Your task to perform on an android device: turn vacation reply on in the gmail app Image 0: 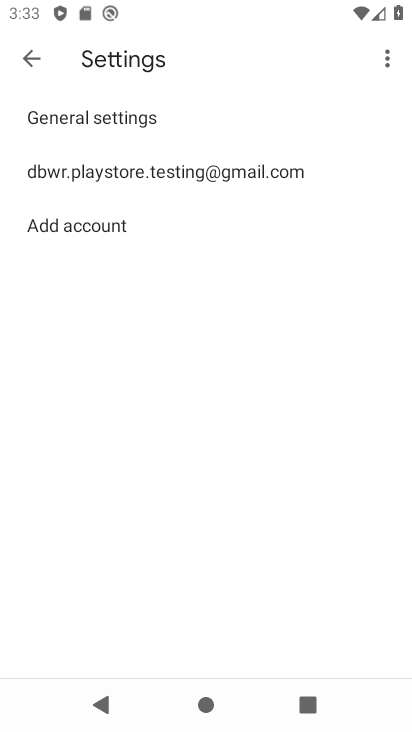
Step 0: press back button
Your task to perform on an android device: turn vacation reply on in the gmail app Image 1: 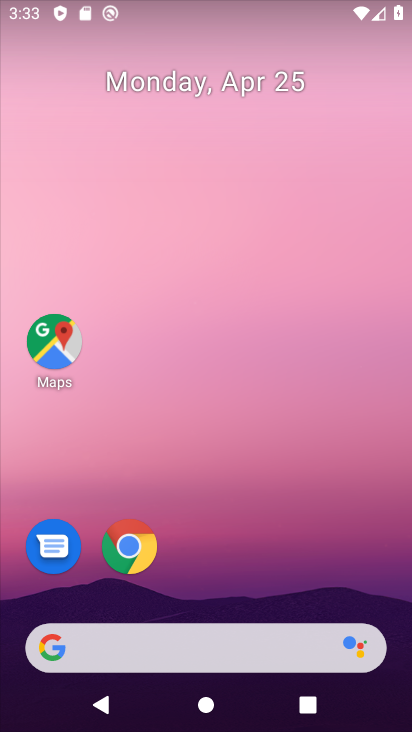
Step 1: drag from (206, 575) to (298, 68)
Your task to perform on an android device: turn vacation reply on in the gmail app Image 2: 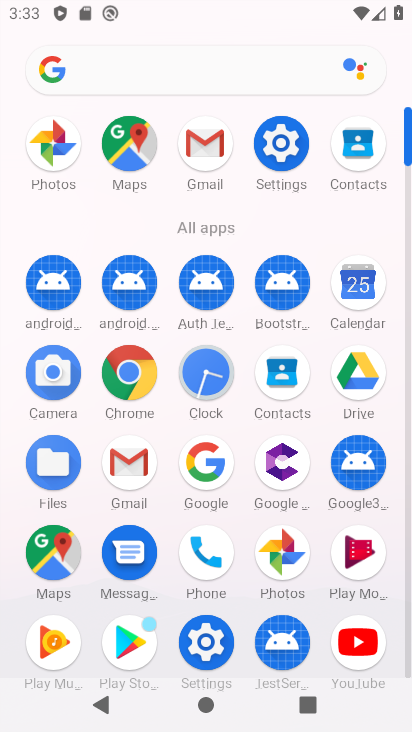
Step 2: click (122, 461)
Your task to perform on an android device: turn vacation reply on in the gmail app Image 3: 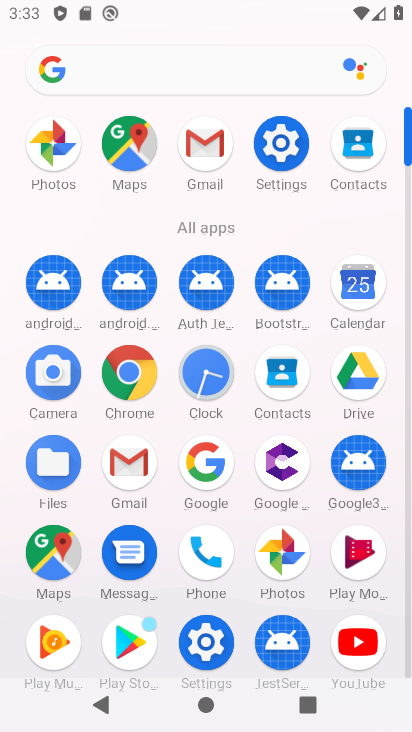
Step 3: click (132, 470)
Your task to perform on an android device: turn vacation reply on in the gmail app Image 4: 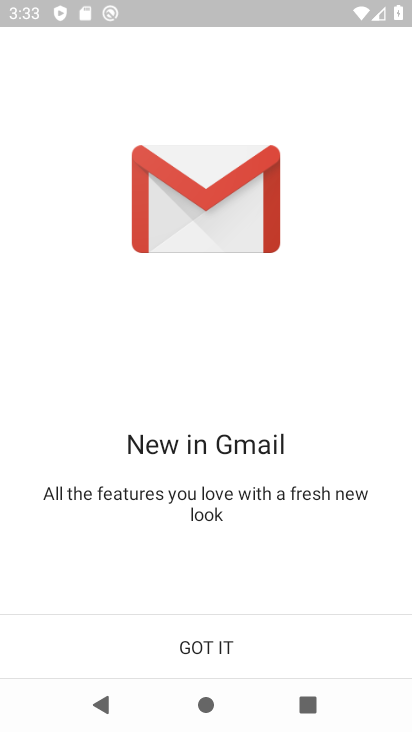
Step 4: click (244, 658)
Your task to perform on an android device: turn vacation reply on in the gmail app Image 5: 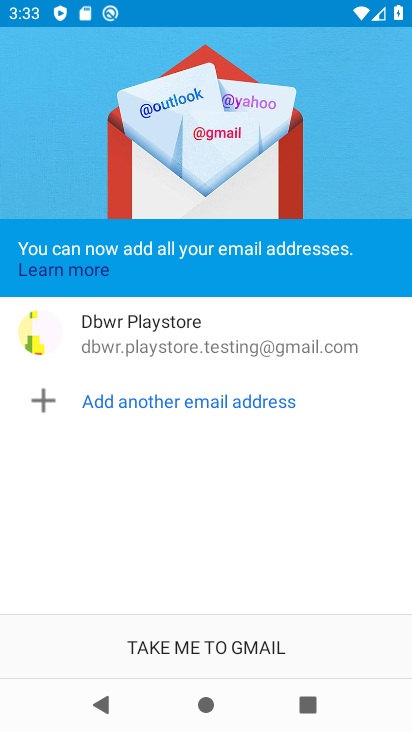
Step 5: click (251, 648)
Your task to perform on an android device: turn vacation reply on in the gmail app Image 6: 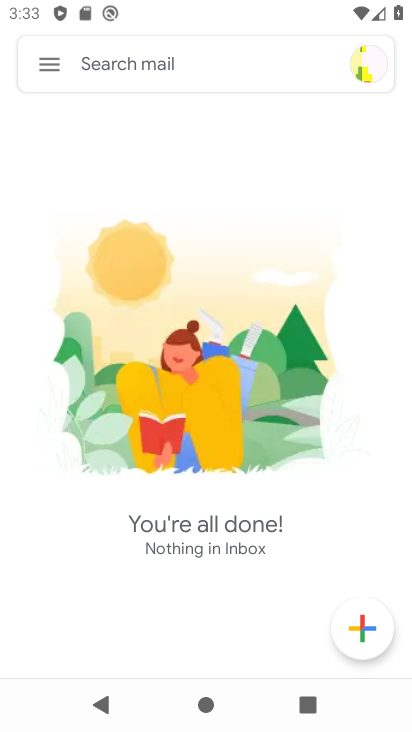
Step 6: click (57, 75)
Your task to perform on an android device: turn vacation reply on in the gmail app Image 7: 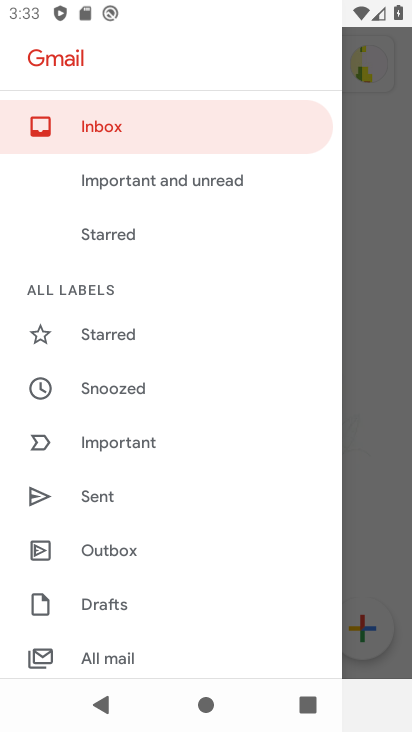
Step 7: drag from (166, 598) to (245, 204)
Your task to perform on an android device: turn vacation reply on in the gmail app Image 8: 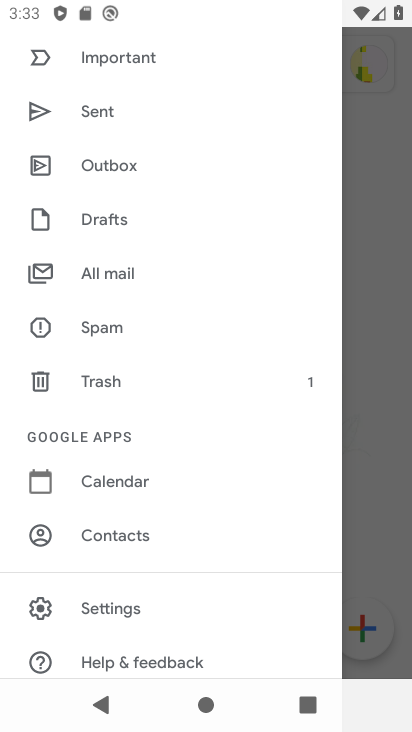
Step 8: click (166, 614)
Your task to perform on an android device: turn vacation reply on in the gmail app Image 9: 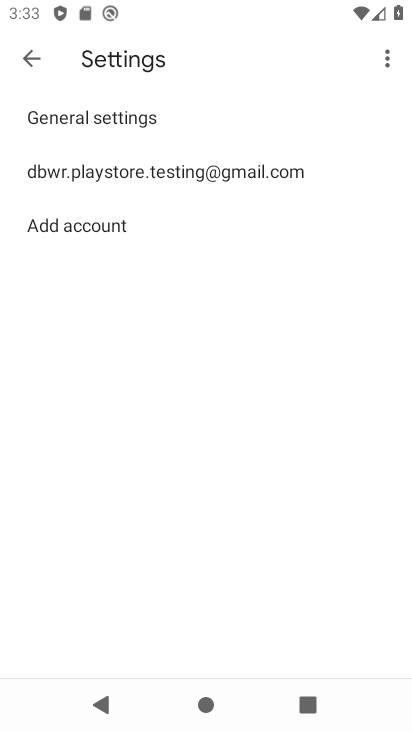
Step 9: click (278, 169)
Your task to perform on an android device: turn vacation reply on in the gmail app Image 10: 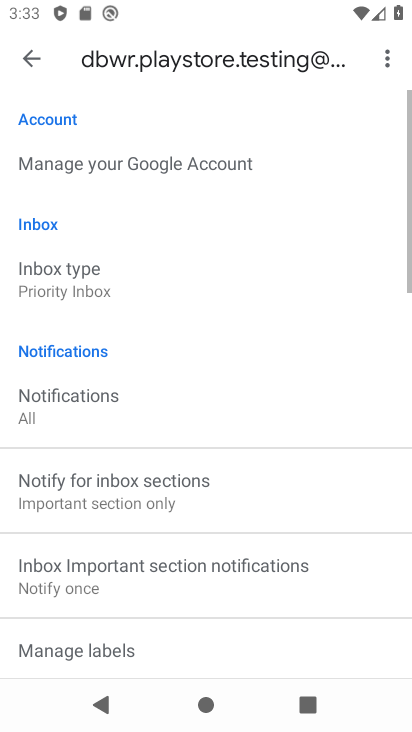
Step 10: drag from (228, 640) to (313, 192)
Your task to perform on an android device: turn vacation reply on in the gmail app Image 11: 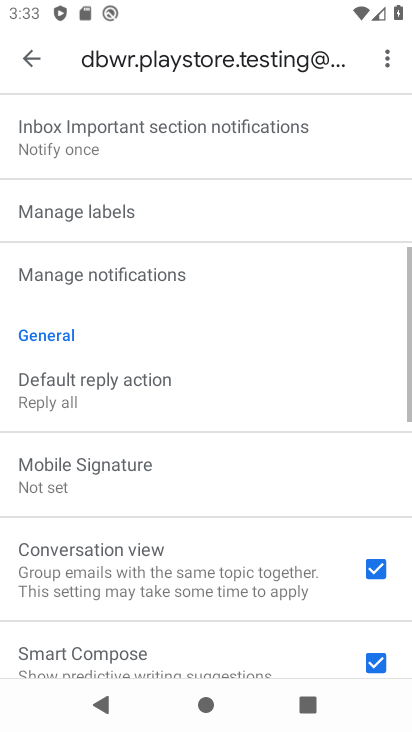
Step 11: drag from (182, 555) to (269, 222)
Your task to perform on an android device: turn vacation reply on in the gmail app Image 12: 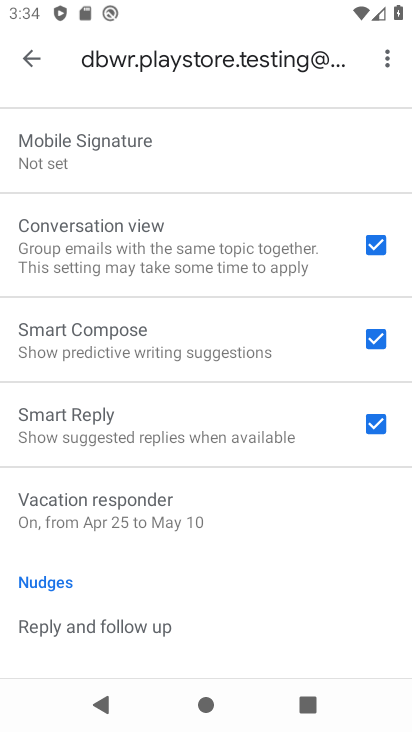
Step 12: click (190, 522)
Your task to perform on an android device: turn vacation reply on in the gmail app Image 13: 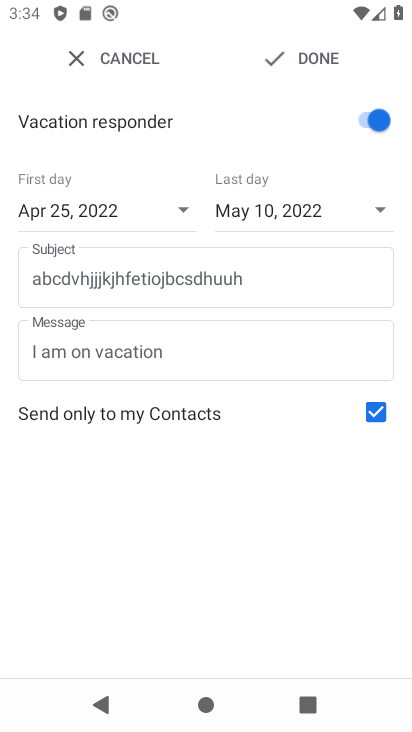
Step 13: click (332, 65)
Your task to perform on an android device: turn vacation reply on in the gmail app Image 14: 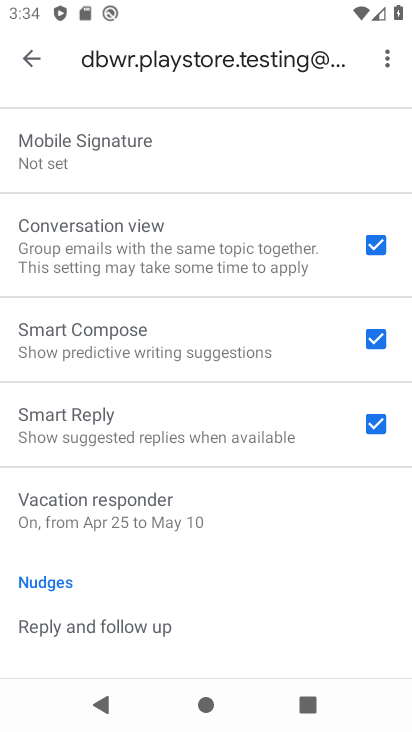
Step 14: task complete